Your task to perform on an android device: What's the weather going to be this weekend? Image 0: 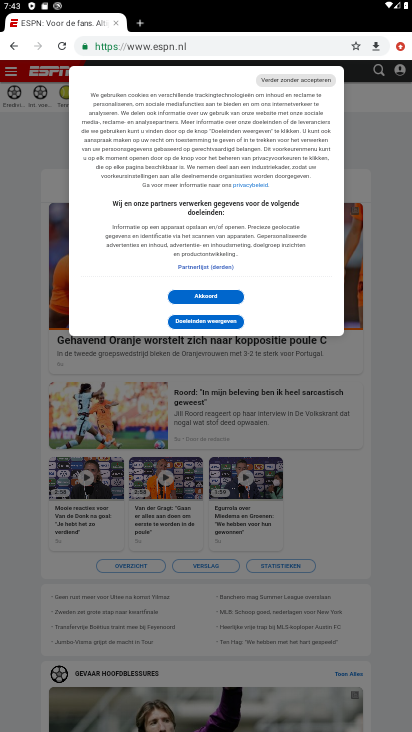
Step 0: click (259, 48)
Your task to perform on an android device: What's the weather going to be this weekend? Image 1: 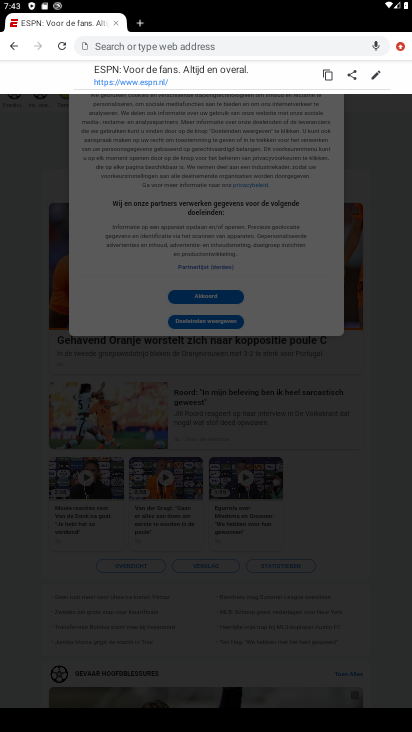
Step 1: type "weather"
Your task to perform on an android device: What's the weather going to be this weekend? Image 2: 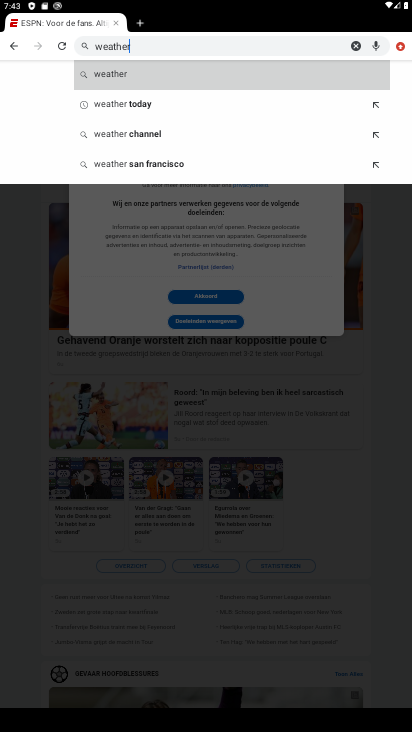
Step 2: press enter
Your task to perform on an android device: What's the weather going to be this weekend? Image 3: 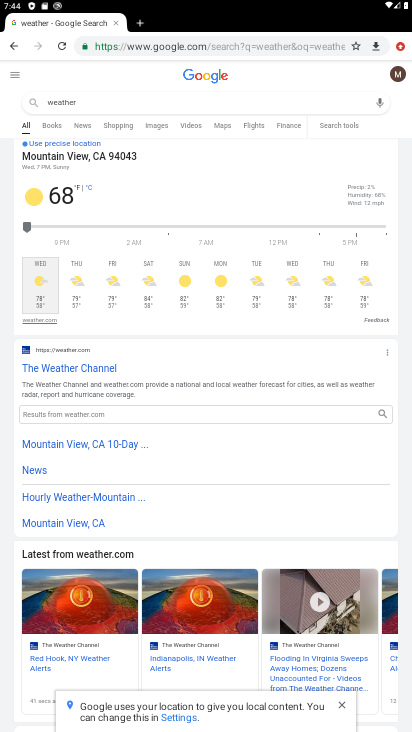
Step 3: click (149, 280)
Your task to perform on an android device: What's the weather going to be this weekend? Image 4: 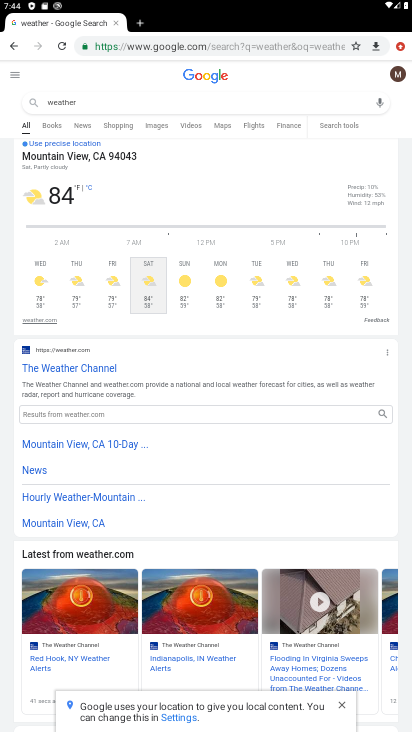
Step 4: task complete